Your task to perform on an android device: Show me productivity apps on the Play Store Image 0: 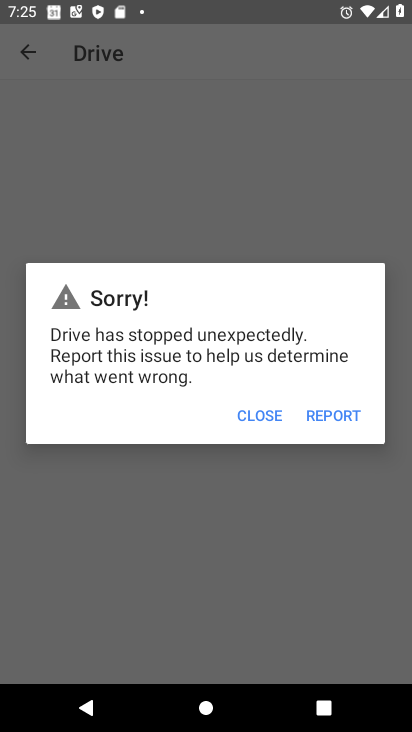
Step 0: press home button
Your task to perform on an android device: Show me productivity apps on the Play Store Image 1: 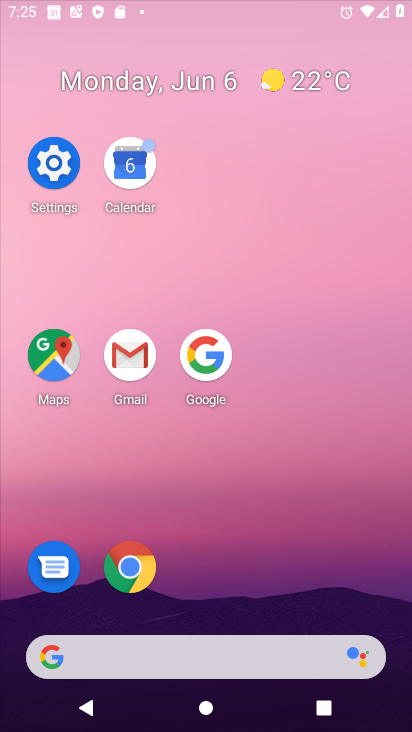
Step 1: drag from (276, 523) to (290, 132)
Your task to perform on an android device: Show me productivity apps on the Play Store Image 2: 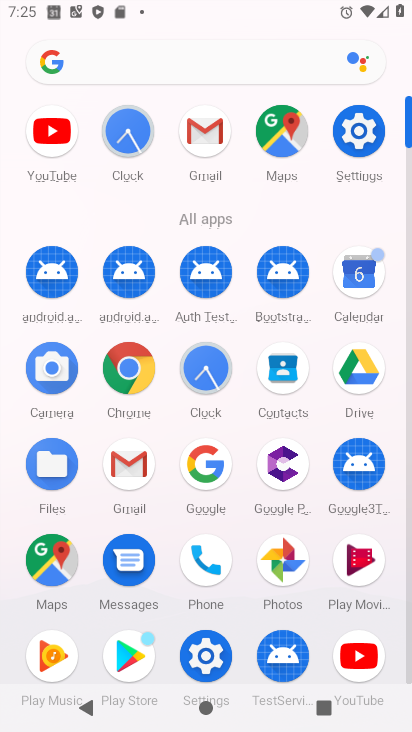
Step 2: click (136, 632)
Your task to perform on an android device: Show me productivity apps on the Play Store Image 3: 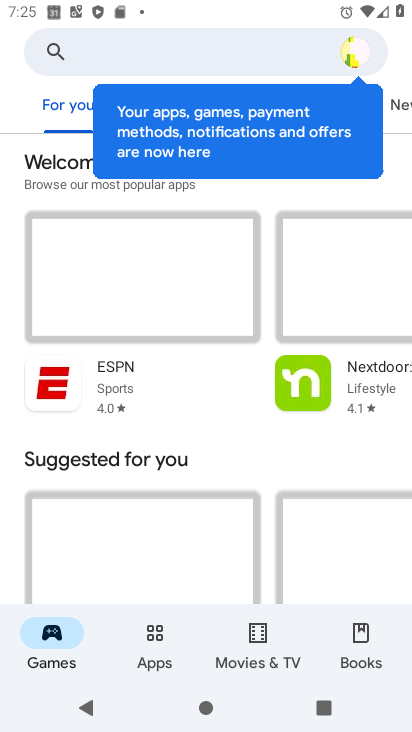
Step 3: click (186, 634)
Your task to perform on an android device: Show me productivity apps on the Play Store Image 4: 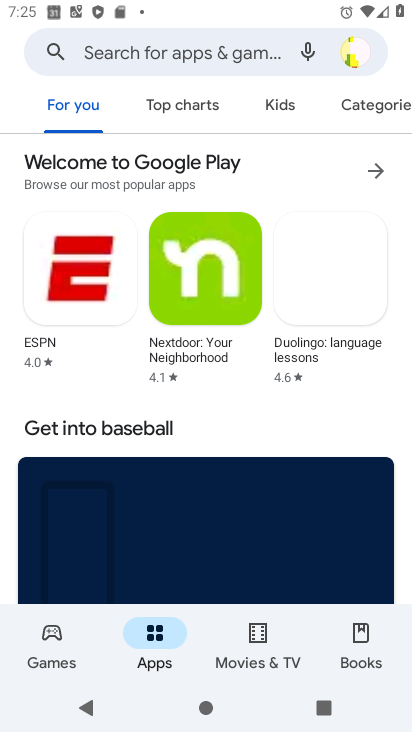
Step 4: click (407, 106)
Your task to perform on an android device: Show me productivity apps on the Play Store Image 5: 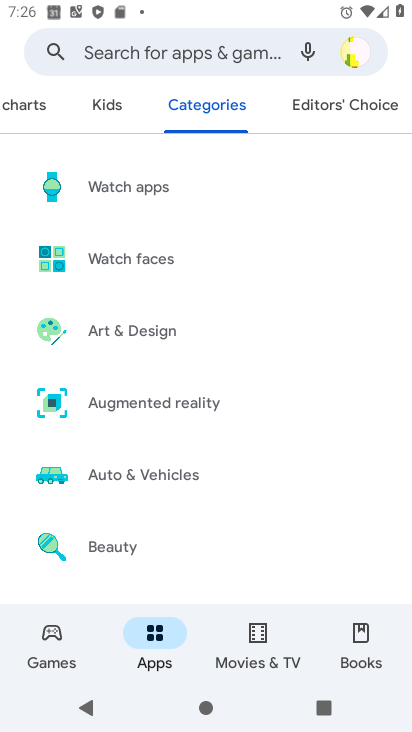
Step 5: drag from (231, 515) to (255, 160)
Your task to perform on an android device: Show me productivity apps on the Play Store Image 6: 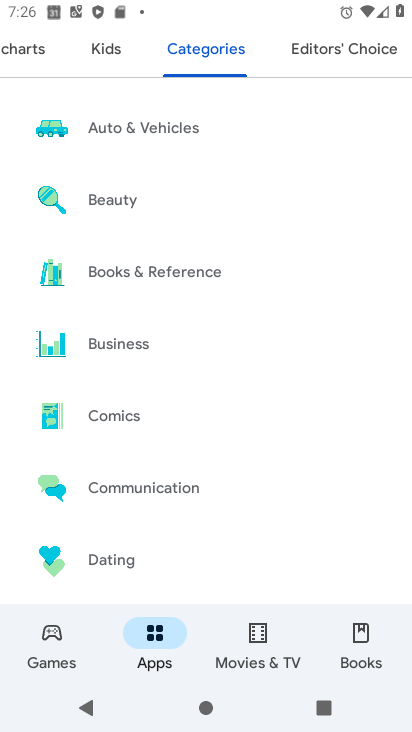
Step 6: drag from (201, 547) to (235, 129)
Your task to perform on an android device: Show me productivity apps on the Play Store Image 7: 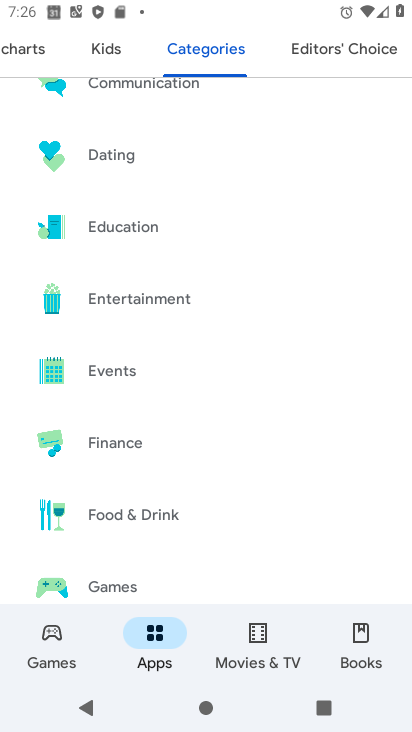
Step 7: drag from (191, 538) to (236, 184)
Your task to perform on an android device: Show me productivity apps on the Play Store Image 8: 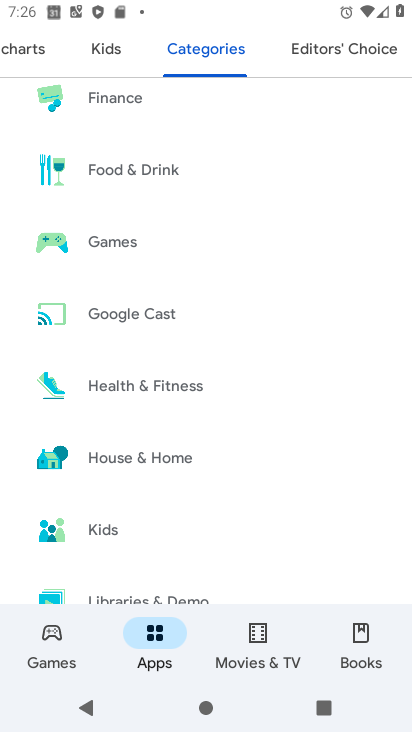
Step 8: drag from (185, 411) to (240, 165)
Your task to perform on an android device: Show me productivity apps on the Play Store Image 9: 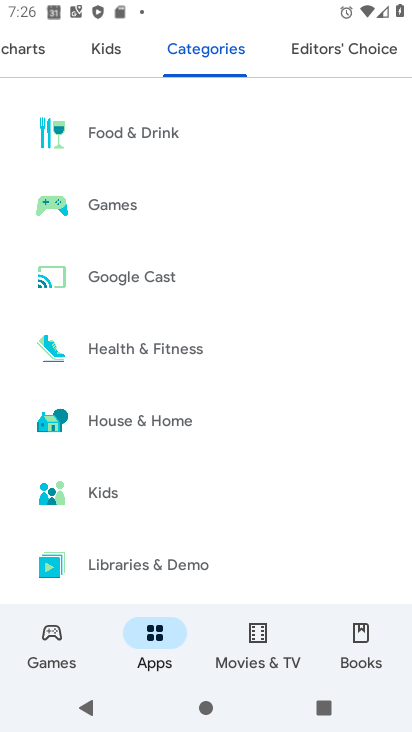
Step 9: drag from (168, 542) to (145, 143)
Your task to perform on an android device: Show me productivity apps on the Play Store Image 10: 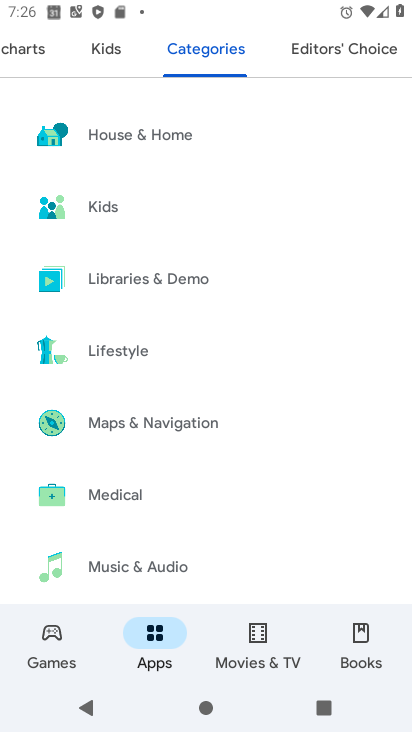
Step 10: drag from (131, 554) to (212, 147)
Your task to perform on an android device: Show me productivity apps on the Play Store Image 11: 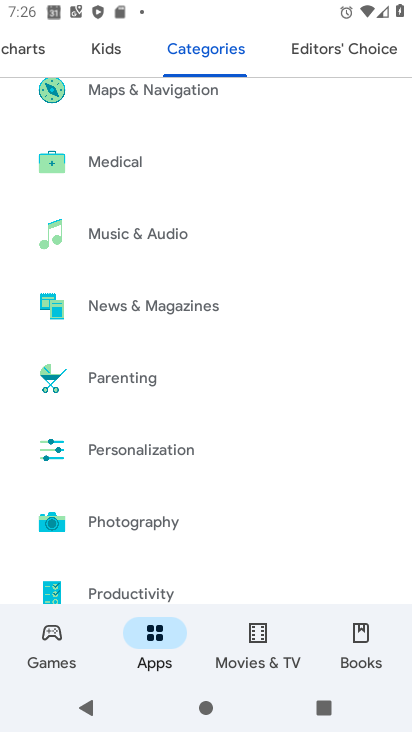
Step 11: click (128, 589)
Your task to perform on an android device: Show me productivity apps on the Play Store Image 12: 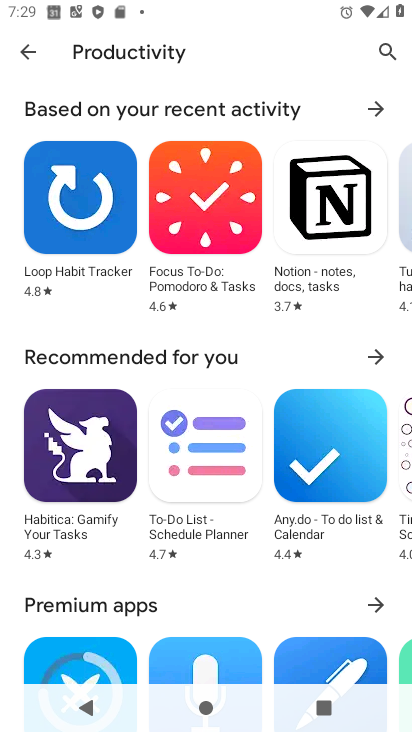
Step 12: task complete